Your task to perform on an android device: Open Google Chrome and open the bookmarks view Image 0: 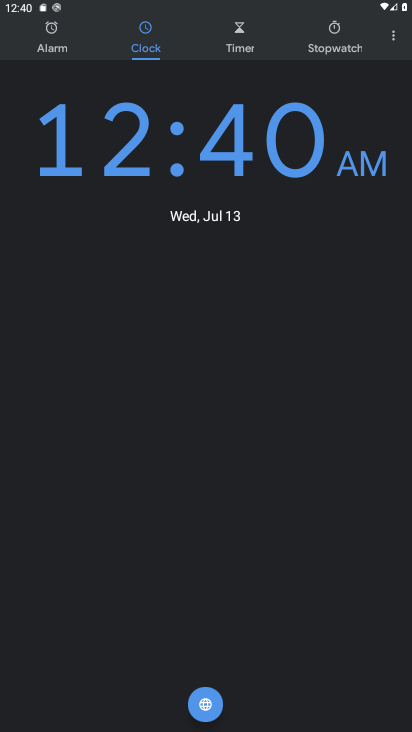
Step 0: press back button
Your task to perform on an android device: Open Google Chrome and open the bookmarks view Image 1: 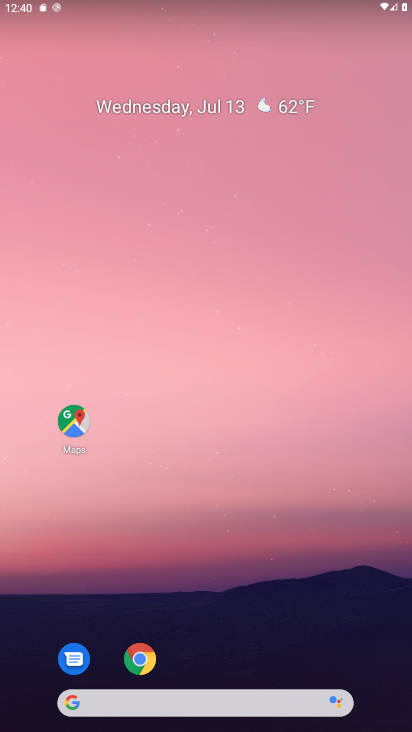
Step 1: drag from (302, 715) to (250, 122)
Your task to perform on an android device: Open Google Chrome and open the bookmarks view Image 2: 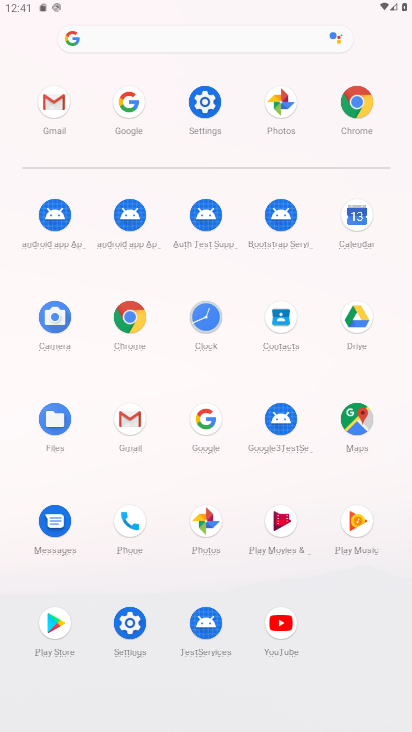
Step 2: click (205, 415)
Your task to perform on an android device: Open Google Chrome and open the bookmarks view Image 3: 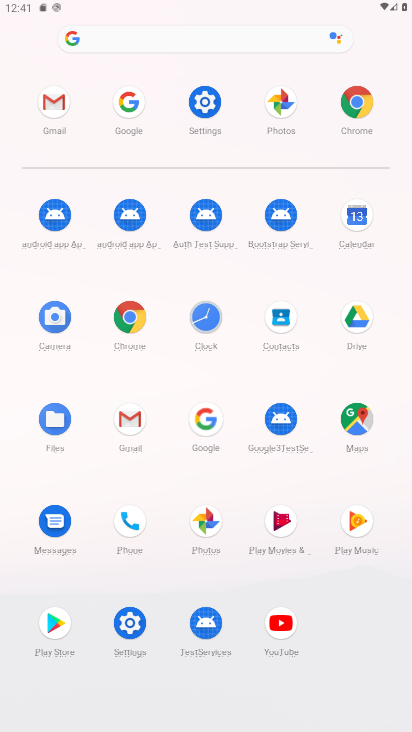
Step 3: click (204, 415)
Your task to perform on an android device: Open Google Chrome and open the bookmarks view Image 4: 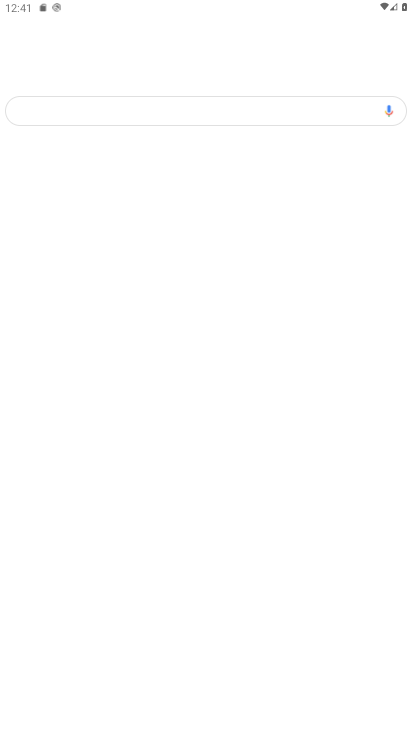
Step 4: click (208, 414)
Your task to perform on an android device: Open Google Chrome and open the bookmarks view Image 5: 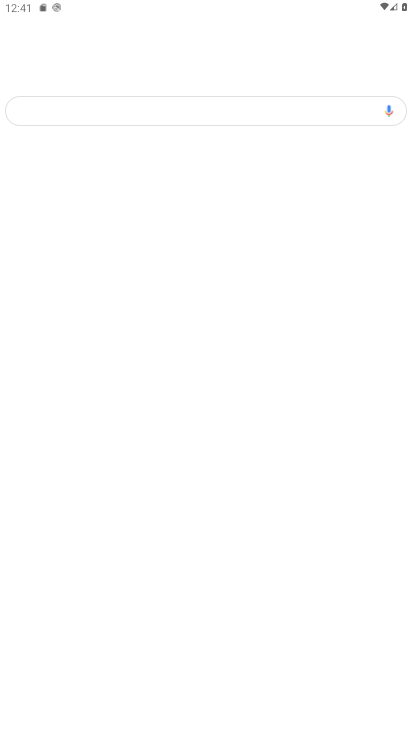
Step 5: click (211, 394)
Your task to perform on an android device: Open Google Chrome and open the bookmarks view Image 6: 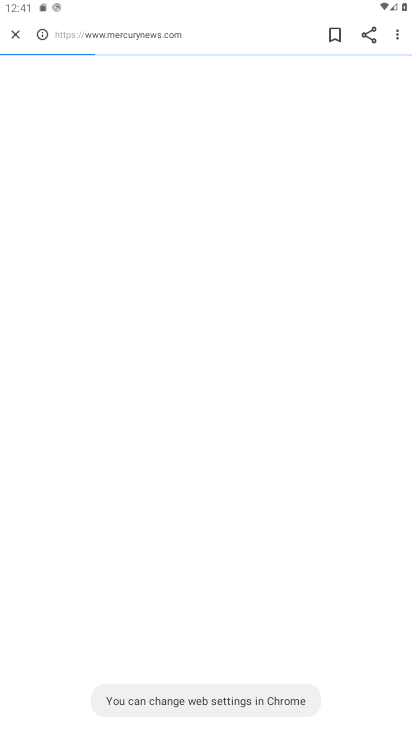
Step 6: click (386, 107)
Your task to perform on an android device: Open Google Chrome and open the bookmarks view Image 7: 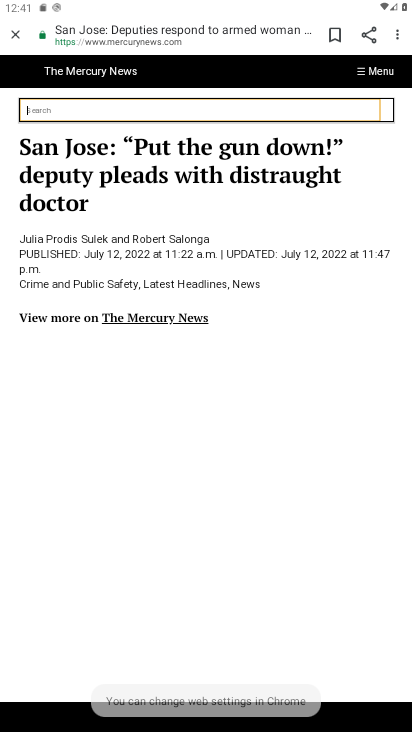
Step 7: press back button
Your task to perform on an android device: Open Google Chrome and open the bookmarks view Image 8: 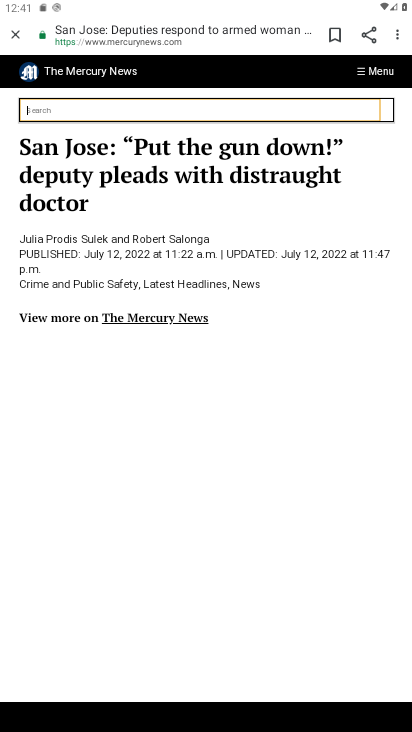
Step 8: press back button
Your task to perform on an android device: Open Google Chrome and open the bookmarks view Image 9: 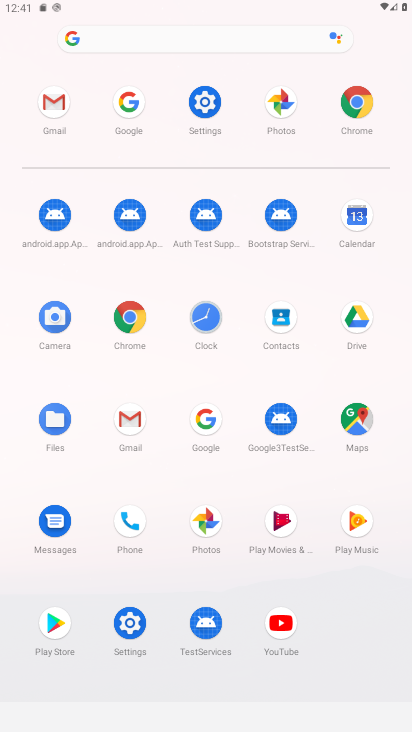
Step 9: press home button
Your task to perform on an android device: Open Google Chrome and open the bookmarks view Image 10: 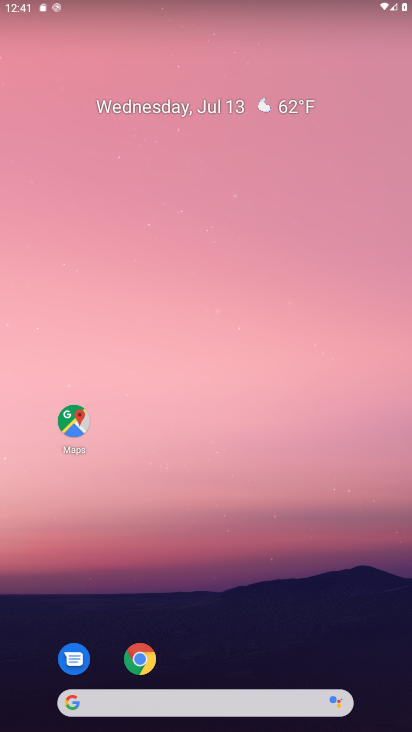
Step 10: drag from (197, 524) to (111, 8)
Your task to perform on an android device: Open Google Chrome and open the bookmarks view Image 11: 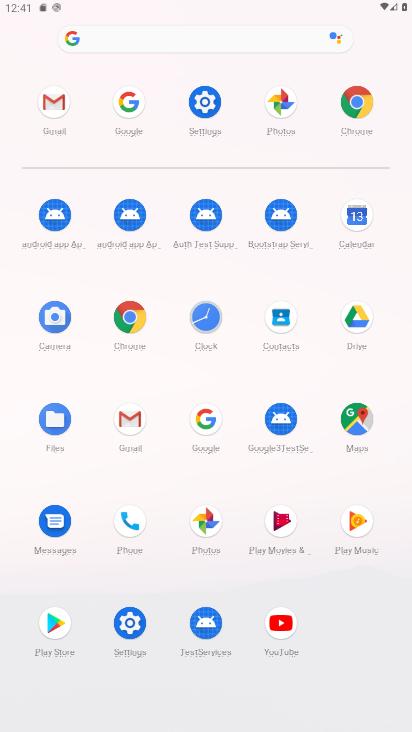
Step 11: click (146, 326)
Your task to perform on an android device: Open Google Chrome and open the bookmarks view Image 12: 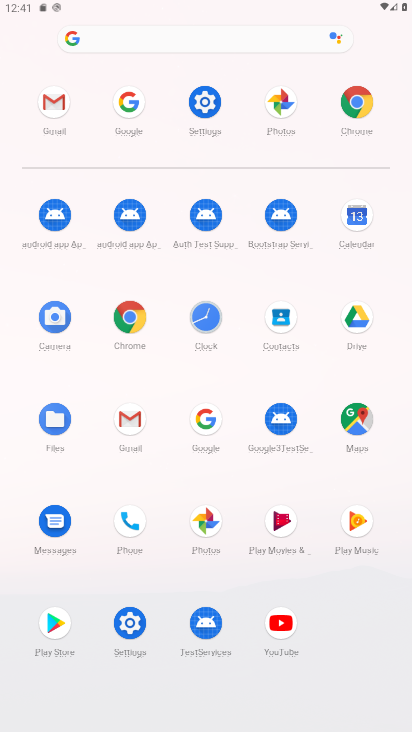
Step 12: click (146, 326)
Your task to perform on an android device: Open Google Chrome and open the bookmarks view Image 13: 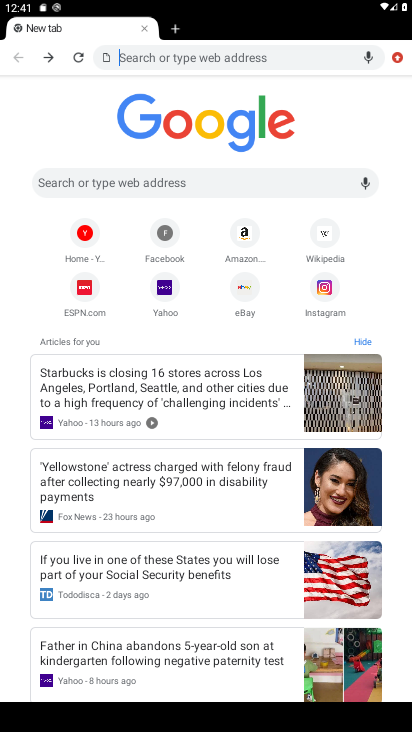
Step 13: drag from (397, 51) to (293, 303)
Your task to perform on an android device: Open Google Chrome and open the bookmarks view Image 14: 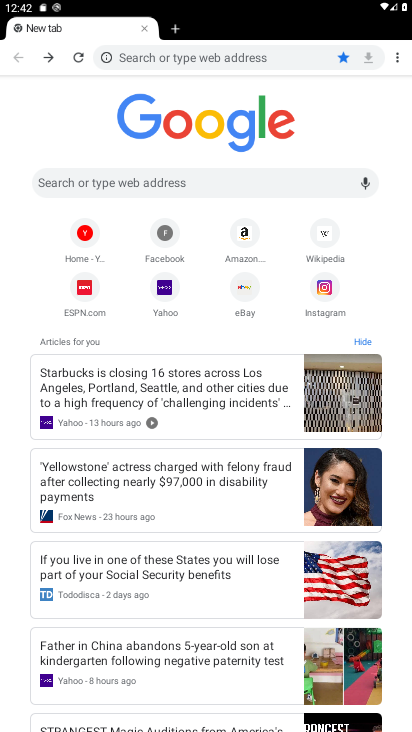
Step 14: click (291, 299)
Your task to perform on an android device: Open Google Chrome and open the bookmarks view Image 15: 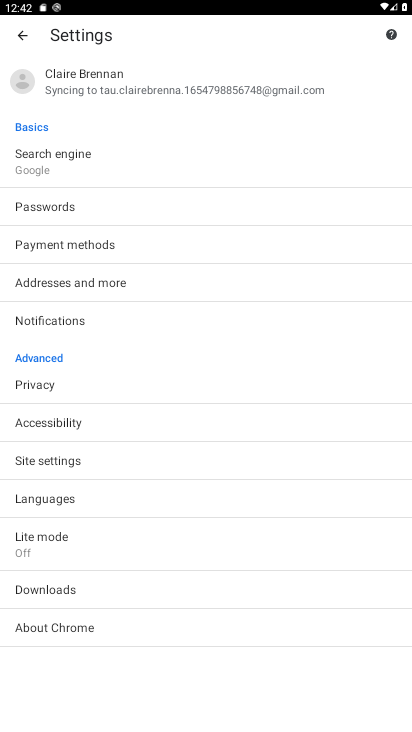
Step 15: task complete